Your task to perform on an android device: Go to Wikipedia Image 0: 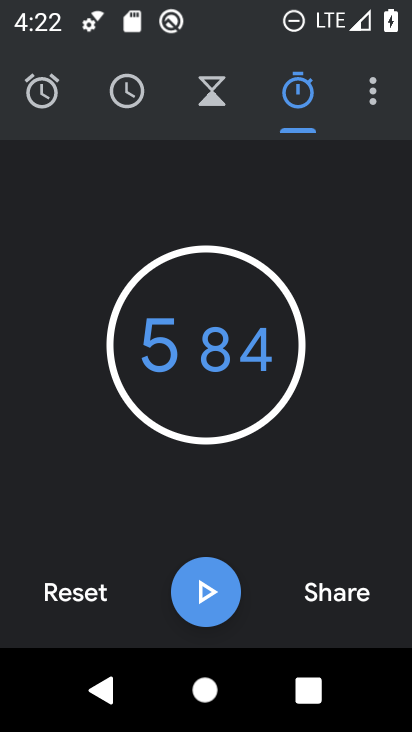
Step 0: press home button
Your task to perform on an android device: Go to Wikipedia Image 1: 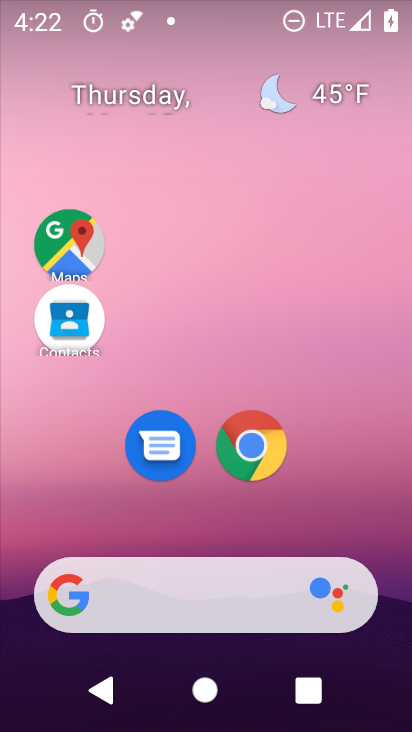
Step 1: click (255, 448)
Your task to perform on an android device: Go to Wikipedia Image 2: 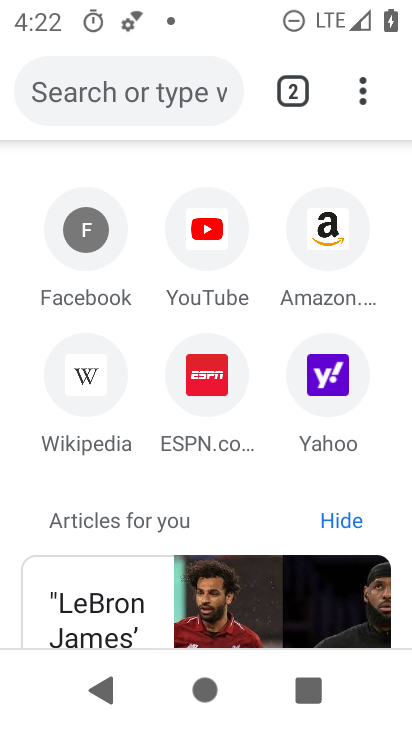
Step 2: click (80, 379)
Your task to perform on an android device: Go to Wikipedia Image 3: 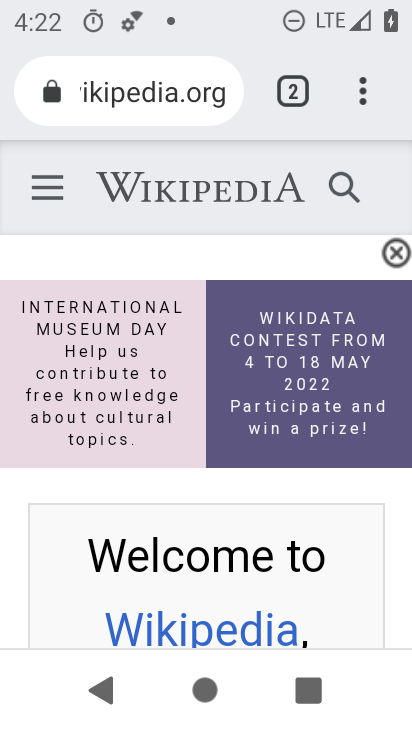
Step 3: task complete